Your task to perform on an android device: Open notification settings Image 0: 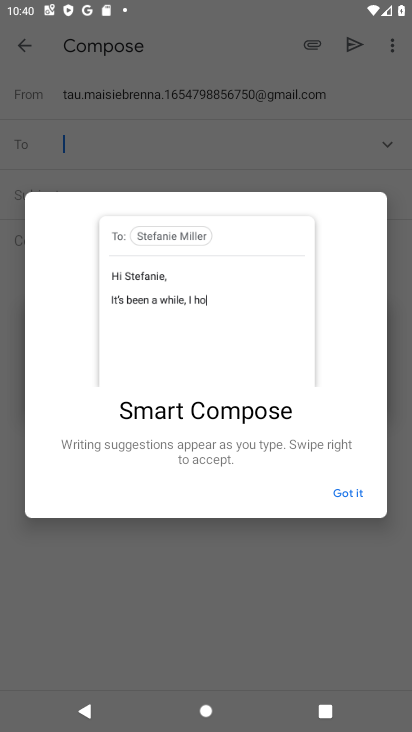
Step 0: press home button
Your task to perform on an android device: Open notification settings Image 1: 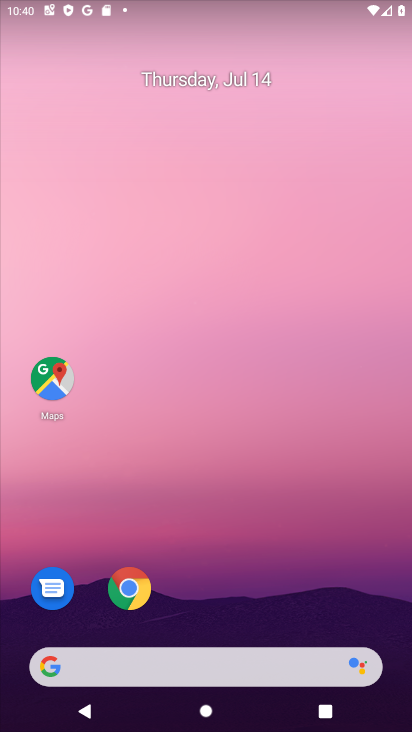
Step 1: drag from (137, 663) to (329, 75)
Your task to perform on an android device: Open notification settings Image 2: 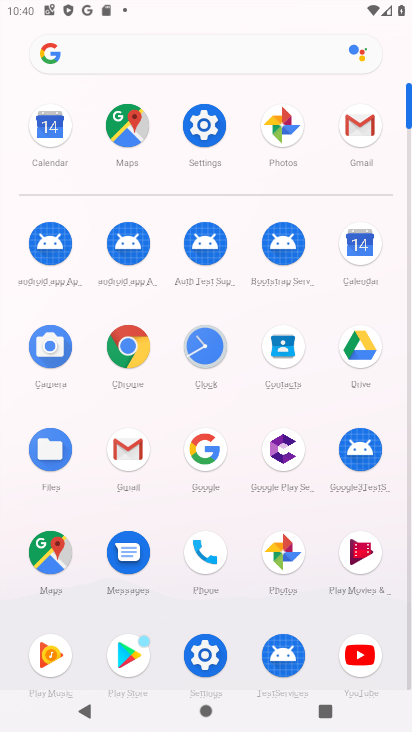
Step 2: click (204, 130)
Your task to perform on an android device: Open notification settings Image 3: 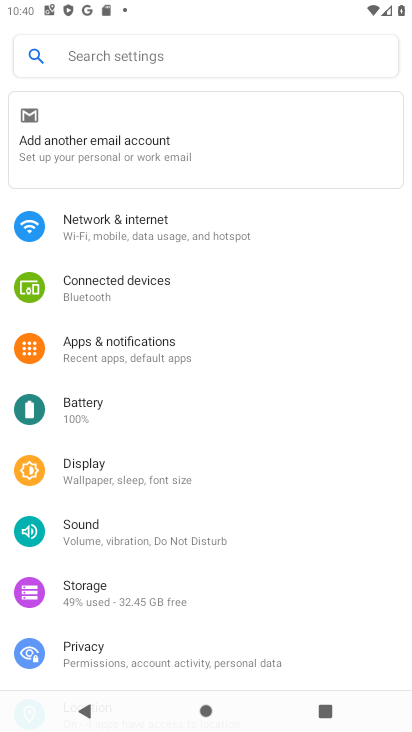
Step 3: click (110, 357)
Your task to perform on an android device: Open notification settings Image 4: 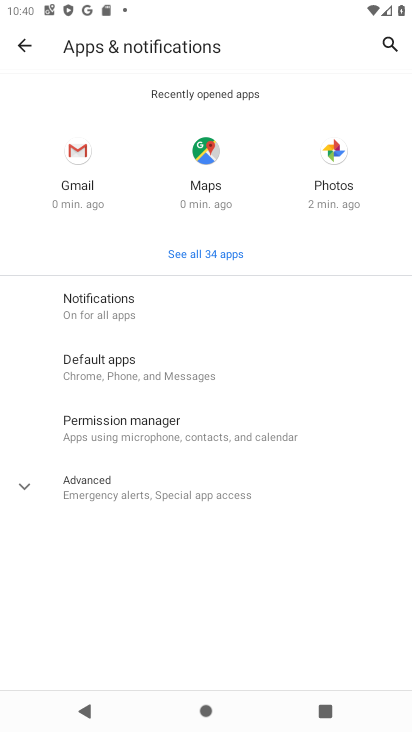
Step 4: click (116, 301)
Your task to perform on an android device: Open notification settings Image 5: 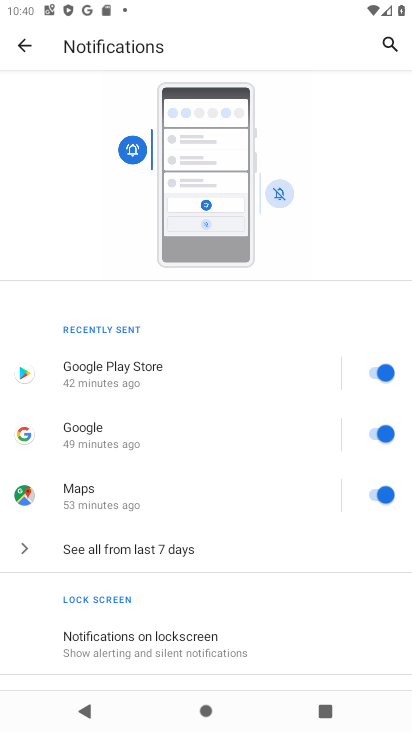
Step 5: task complete